Your task to perform on an android device: Find coffee shops on Maps Image 0: 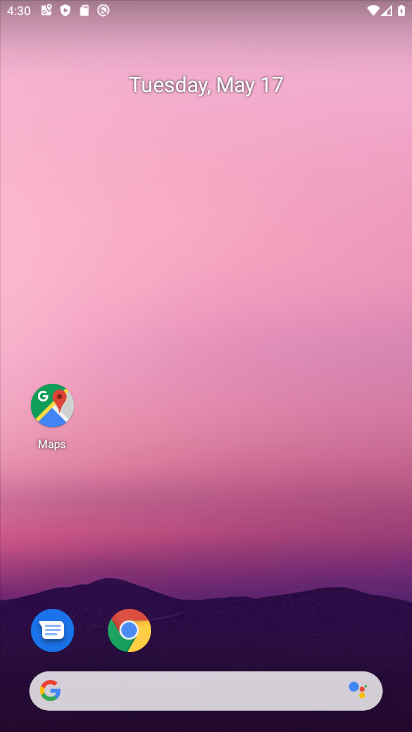
Step 0: click (42, 396)
Your task to perform on an android device: Find coffee shops on Maps Image 1: 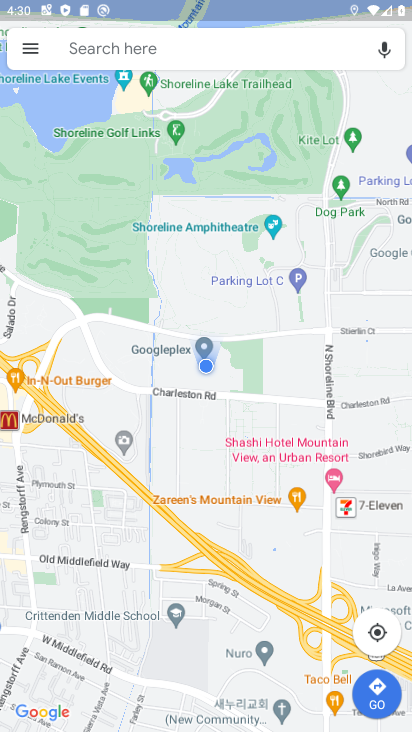
Step 1: click (71, 42)
Your task to perform on an android device: Find coffee shops on Maps Image 2: 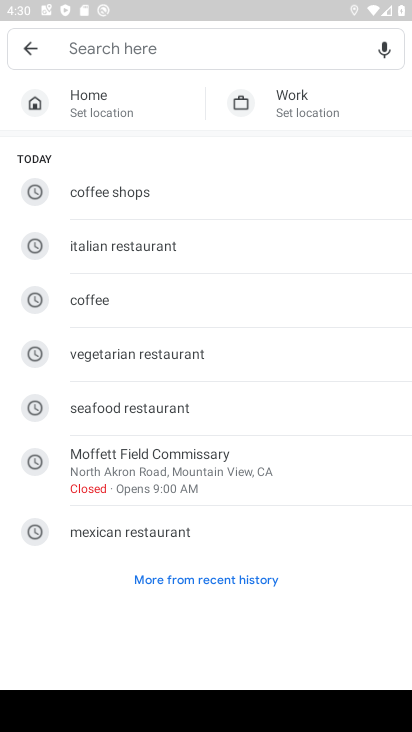
Step 2: type " coffee shops "
Your task to perform on an android device: Find coffee shops on Maps Image 3: 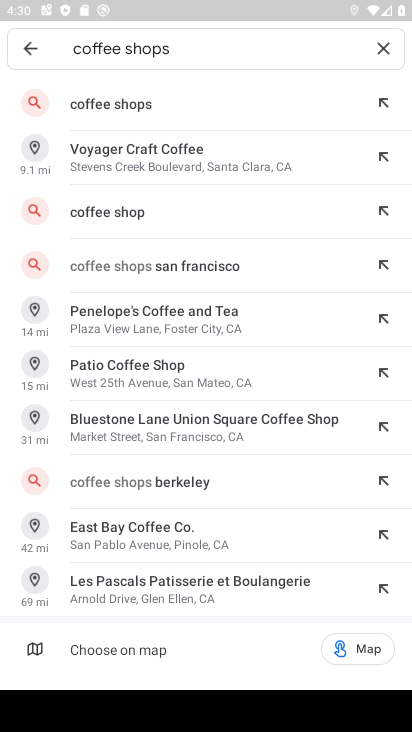
Step 3: click (127, 103)
Your task to perform on an android device: Find coffee shops on Maps Image 4: 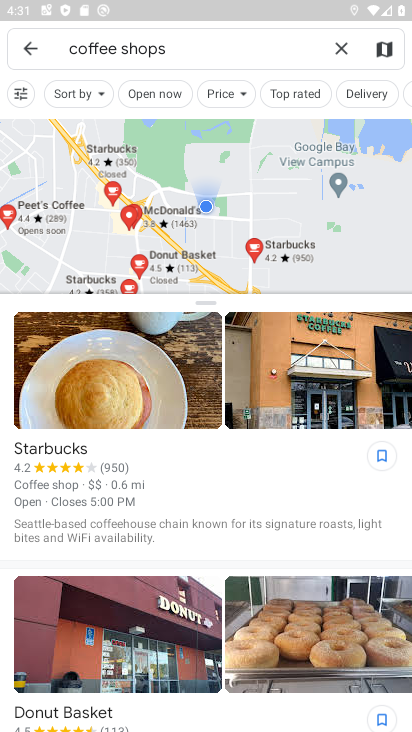
Step 4: task complete